Your task to perform on an android device: open app "Pinterest" Image 0: 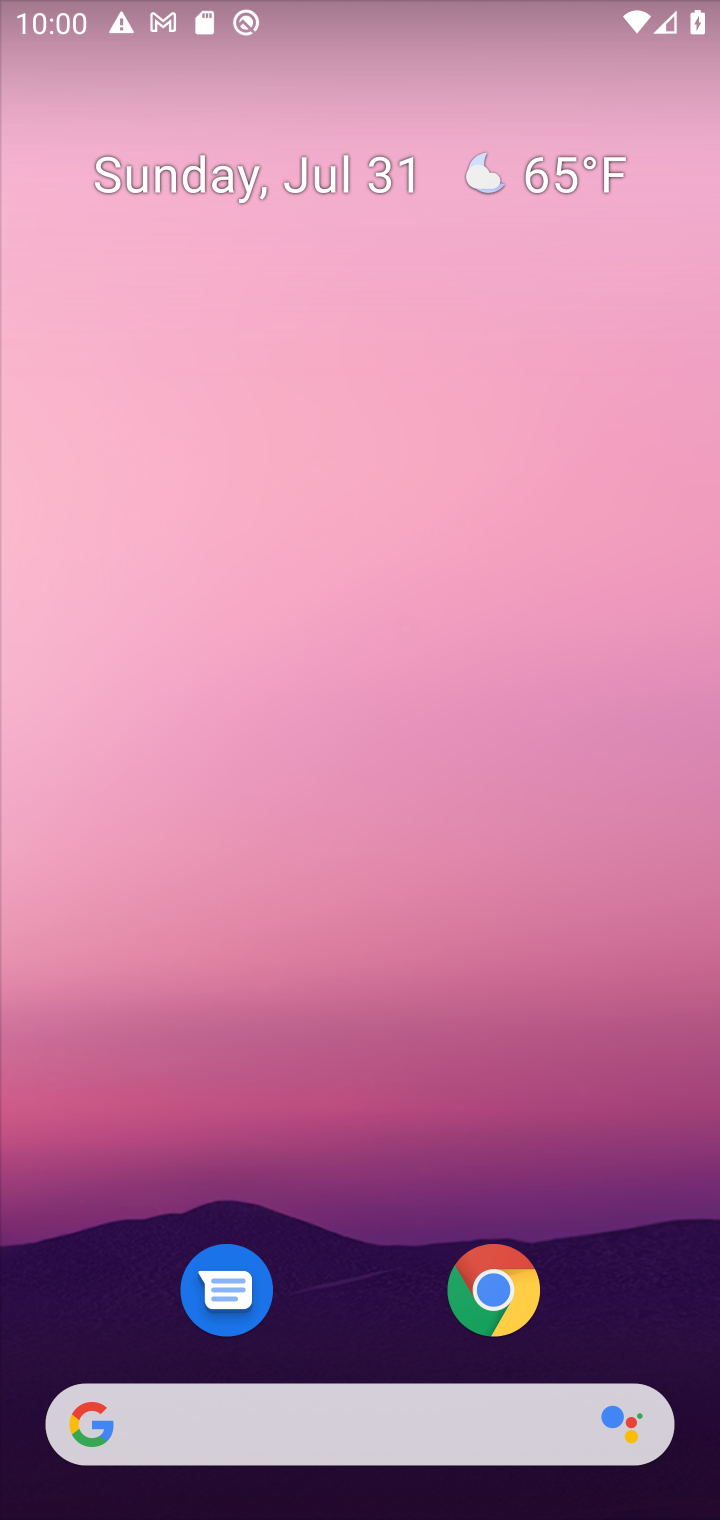
Step 0: press home button
Your task to perform on an android device: open app "Pinterest" Image 1: 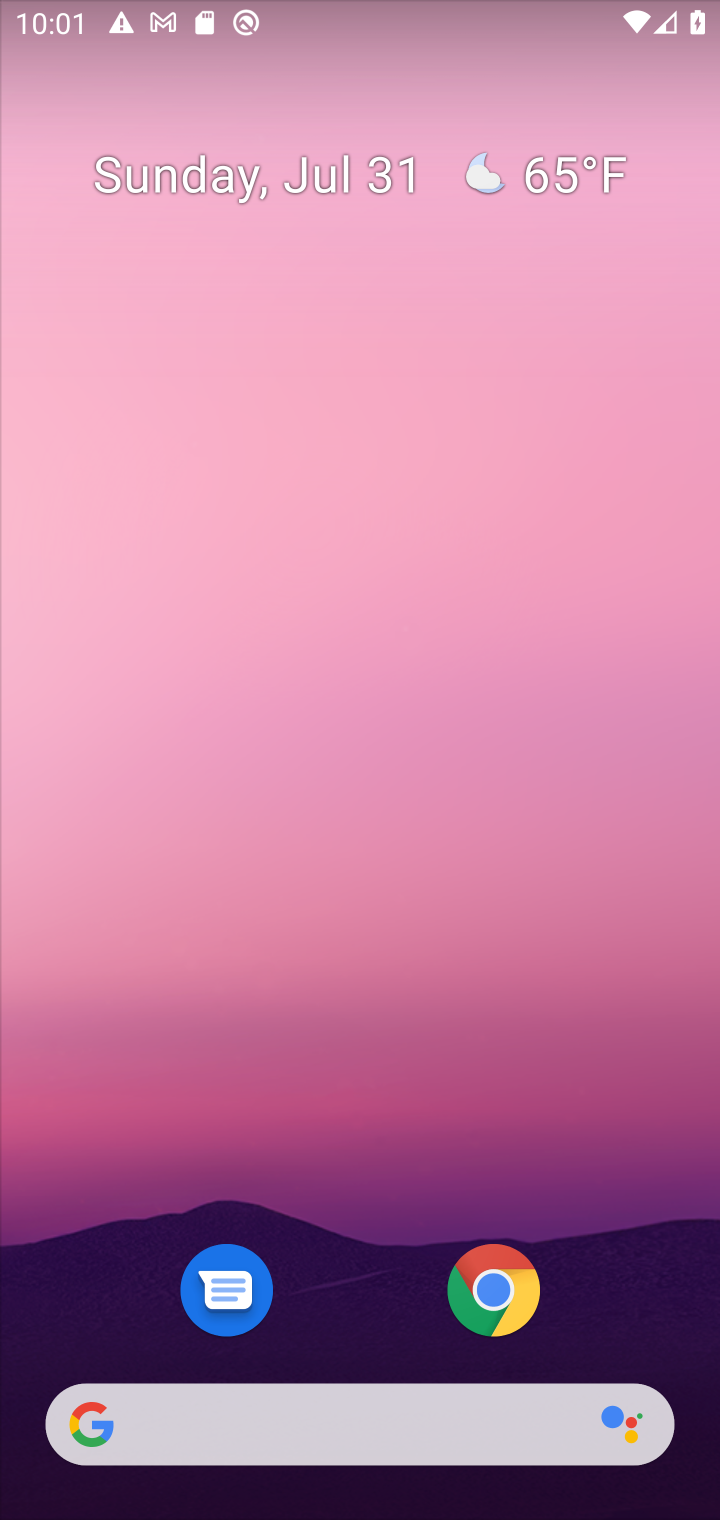
Step 1: press home button
Your task to perform on an android device: open app "Pinterest" Image 2: 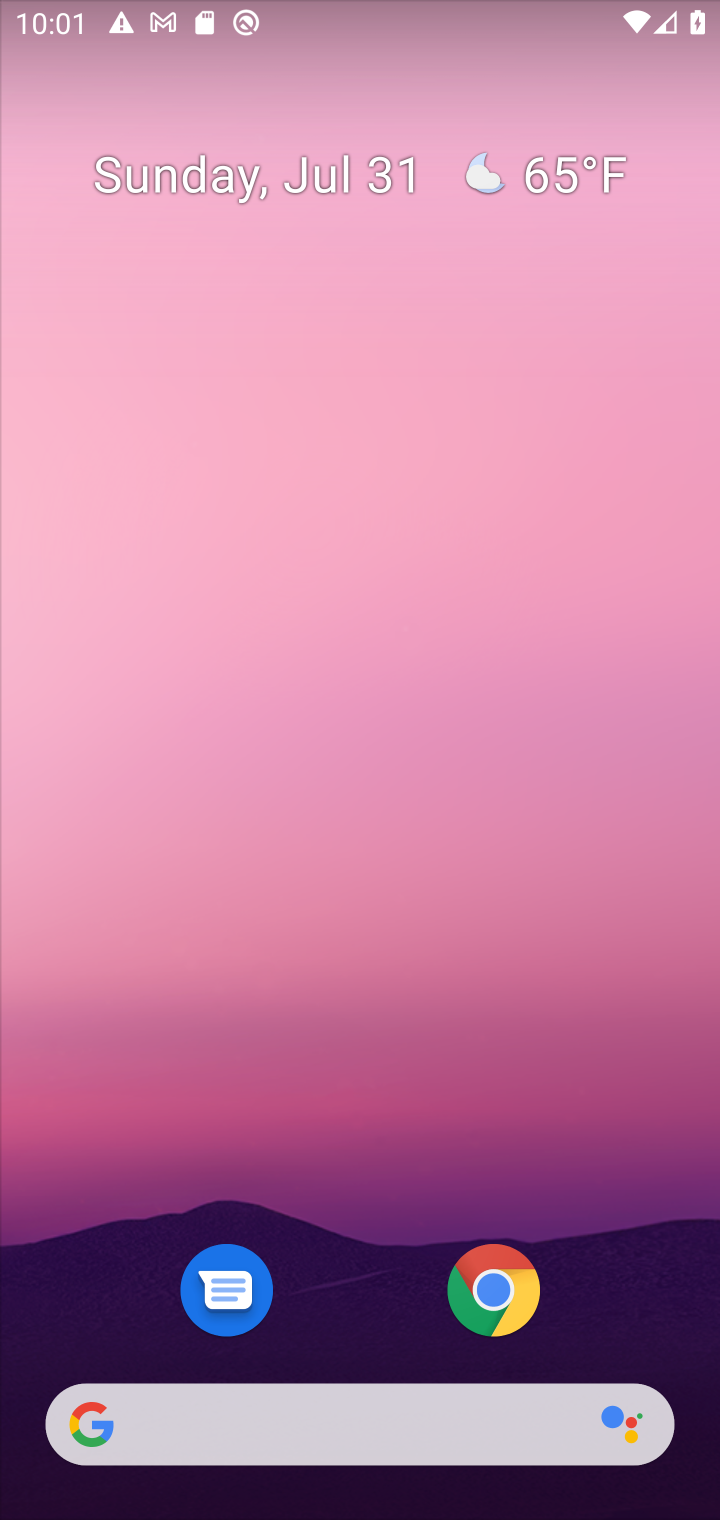
Step 2: drag from (608, 1260) to (587, 108)
Your task to perform on an android device: open app "Pinterest" Image 3: 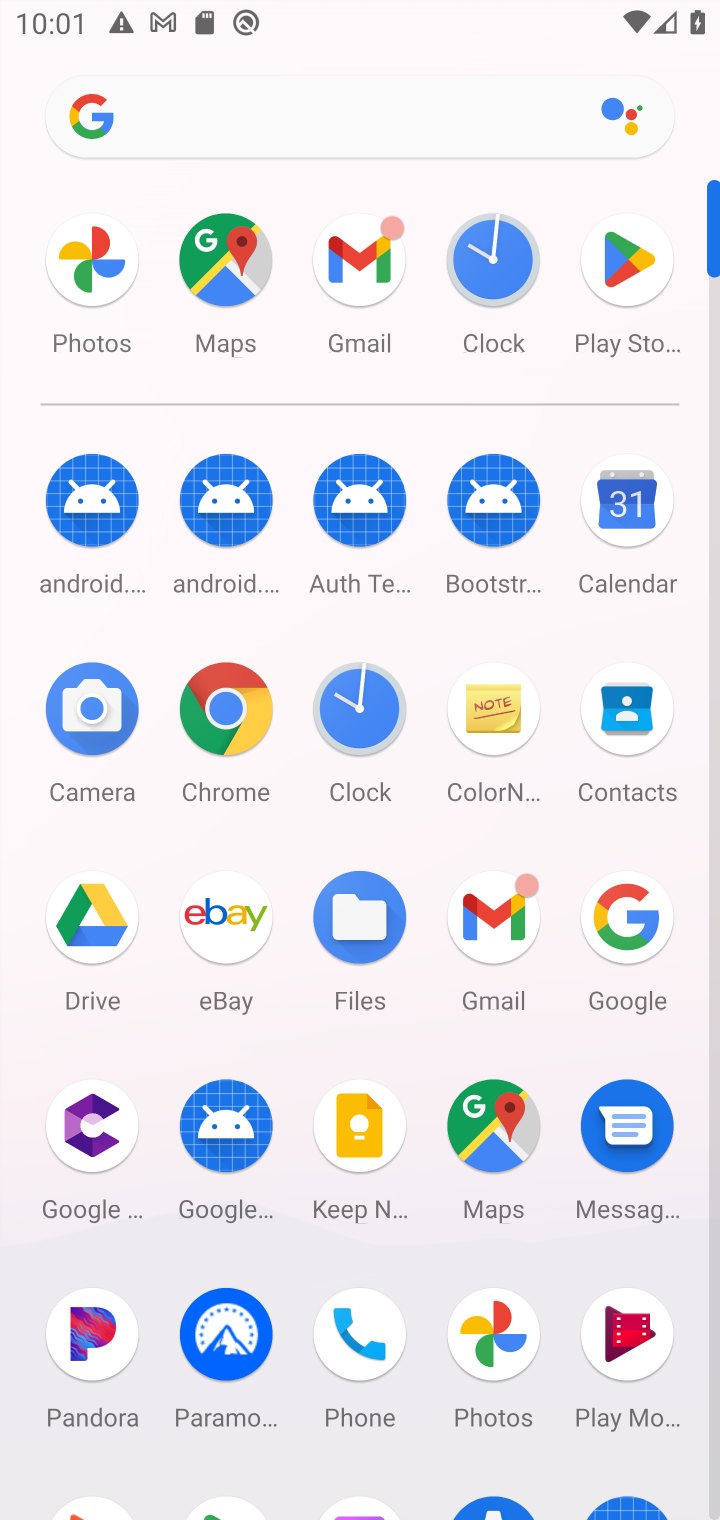
Step 3: click (635, 273)
Your task to perform on an android device: open app "Pinterest" Image 4: 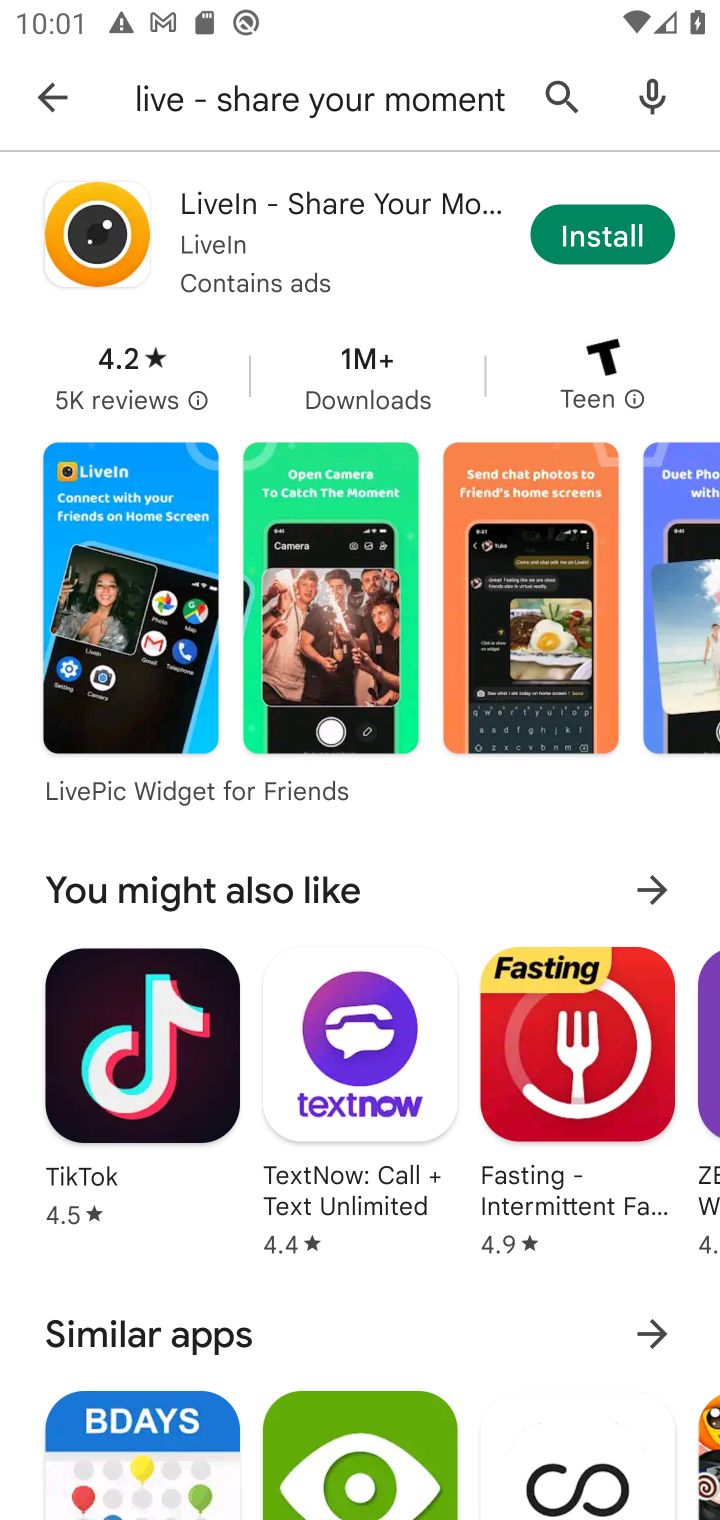
Step 4: click (555, 97)
Your task to perform on an android device: open app "Pinterest" Image 5: 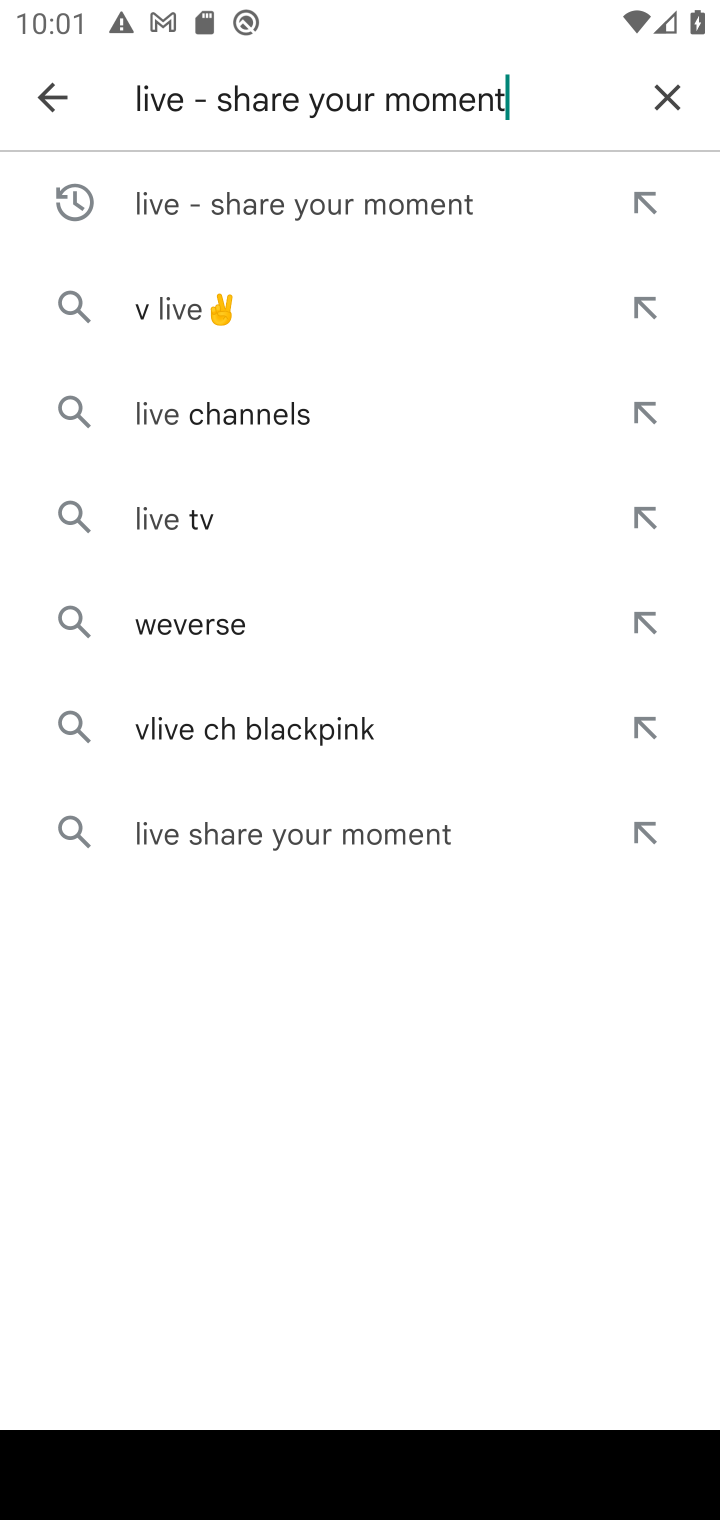
Step 5: click (660, 93)
Your task to perform on an android device: open app "Pinterest" Image 6: 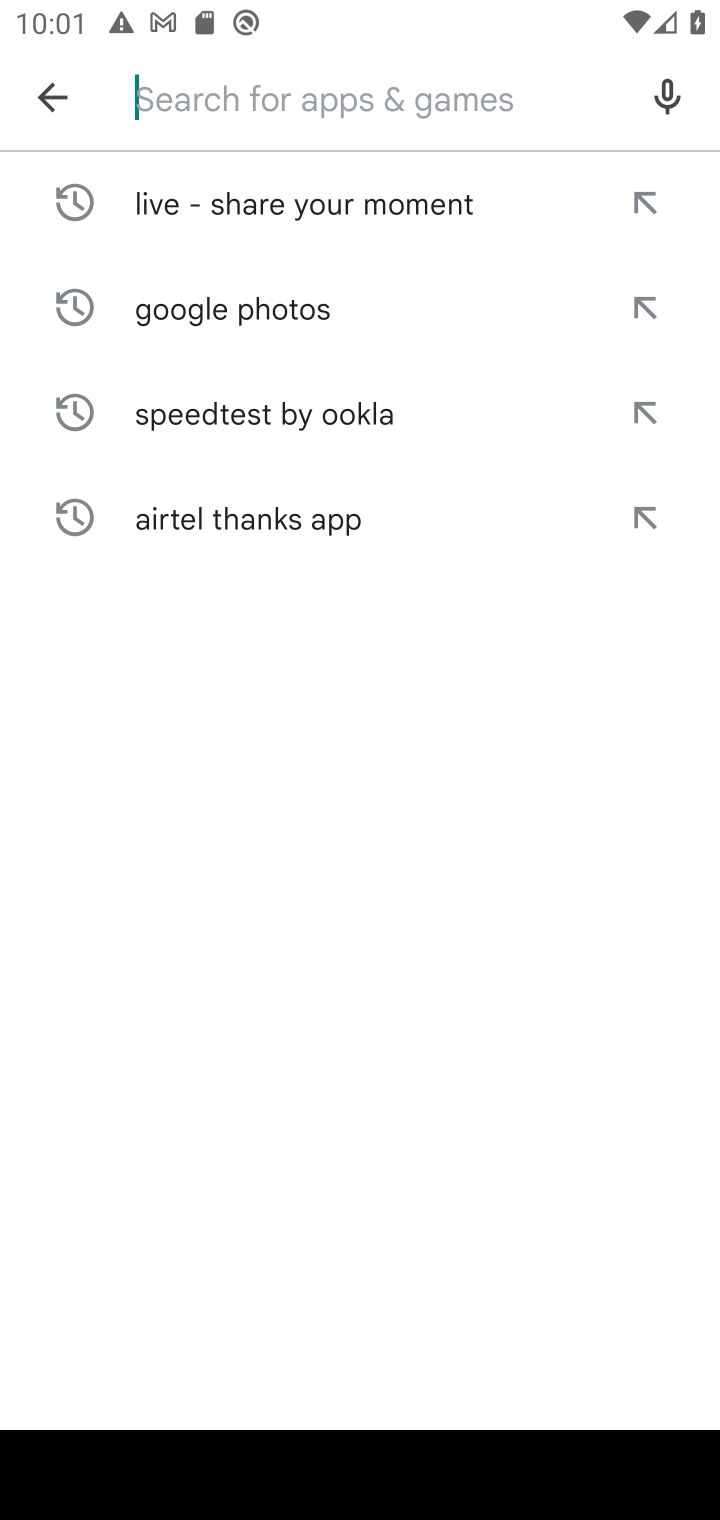
Step 6: type "pinterest"
Your task to perform on an android device: open app "Pinterest" Image 7: 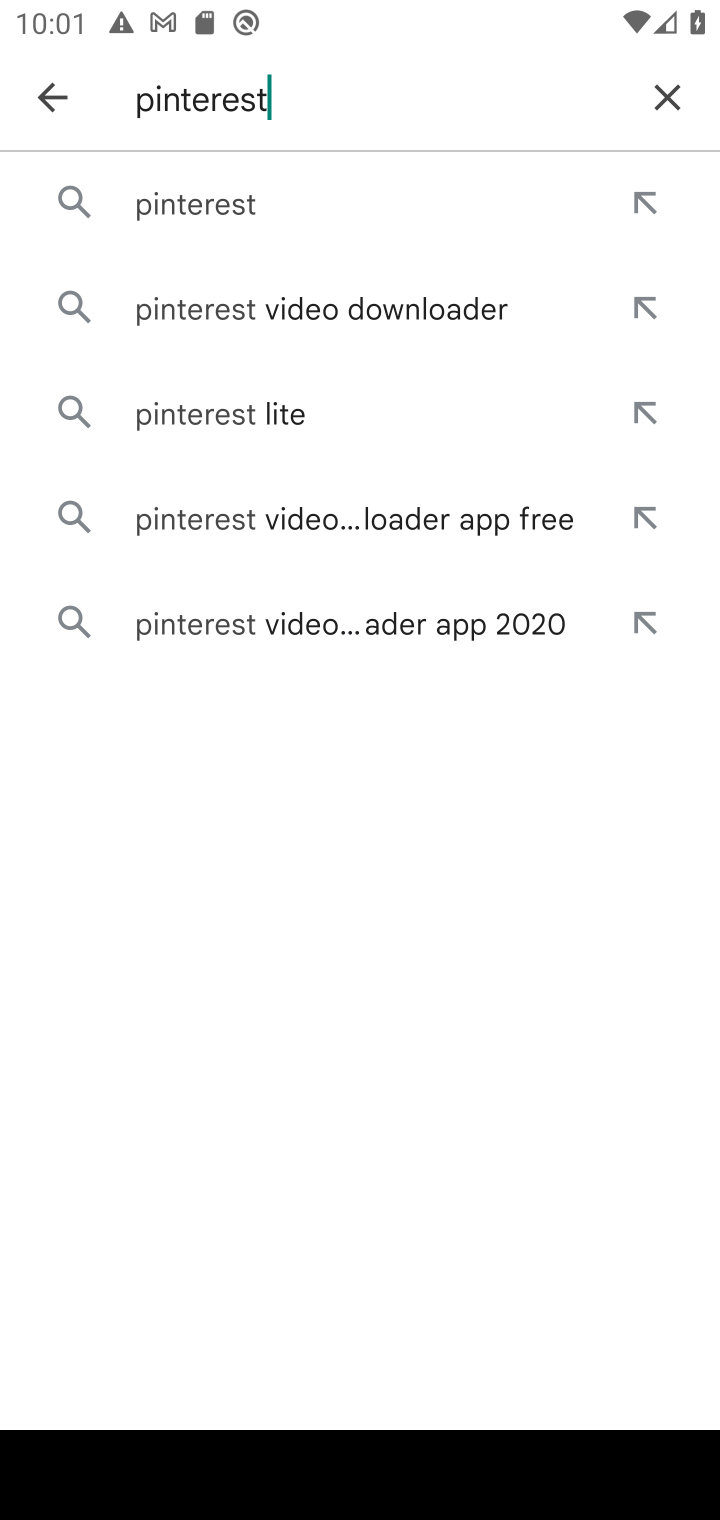
Step 7: click (263, 192)
Your task to perform on an android device: open app "Pinterest" Image 8: 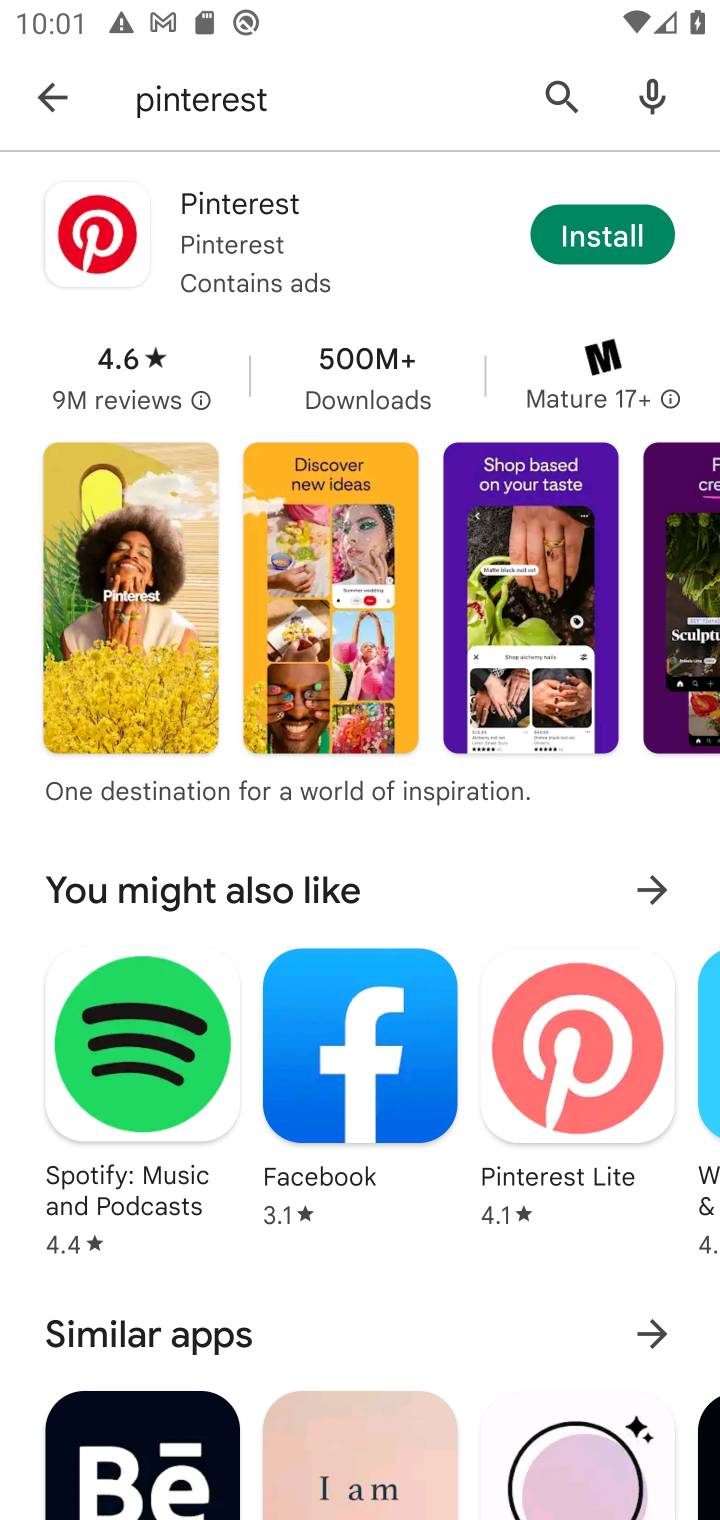
Step 8: task complete